Your task to perform on an android device: Search for Mexican restaurants on Maps Image 0: 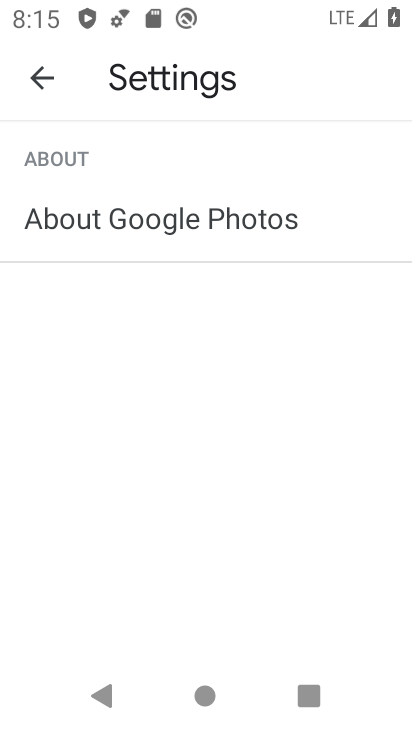
Step 0: press home button
Your task to perform on an android device: Search for Mexican restaurants on Maps Image 1: 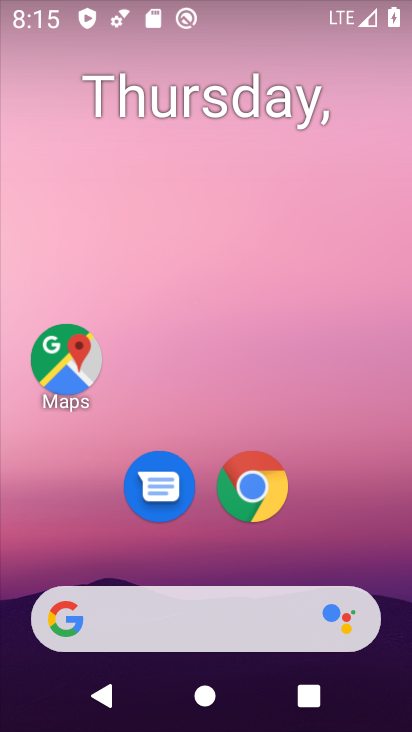
Step 1: drag from (194, 596) to (229, 55)
Your task to perform on an android device: Search for Mexican restaurants on Maps Image 2: 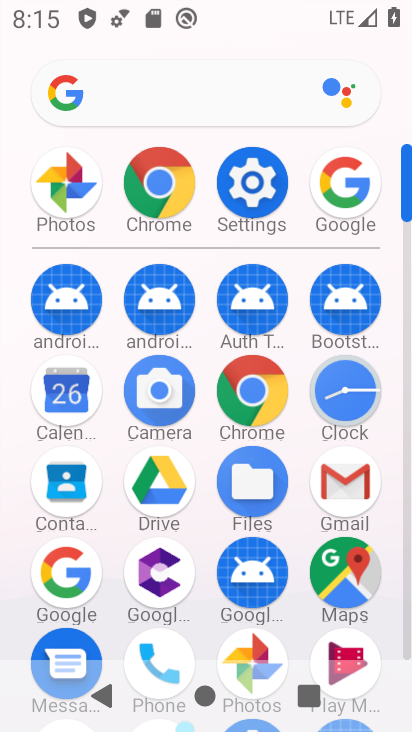
Step 2: click (365, 573)
Your task to perform on an android device: Search for Mexican restaurants on Maps Image 3: 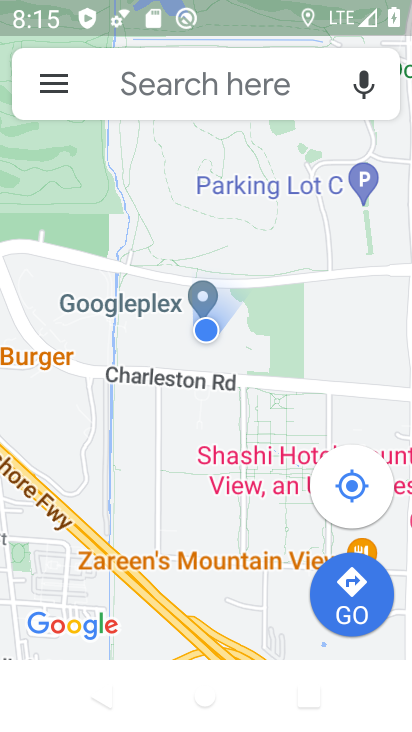
Step 3: click (148, 80)
Your task to perform on an android device: Search for Mexican restaurants on Maps Image 4: 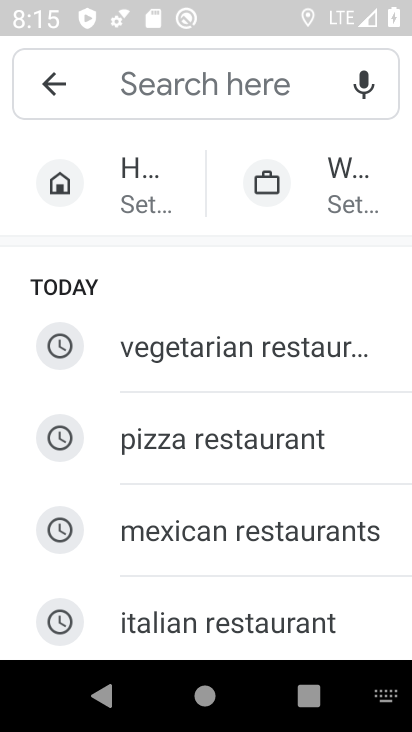
Step 4: click (245, 543)
Your task to perform on an android device: Search for Mexican restaurants on Maps Image 5: 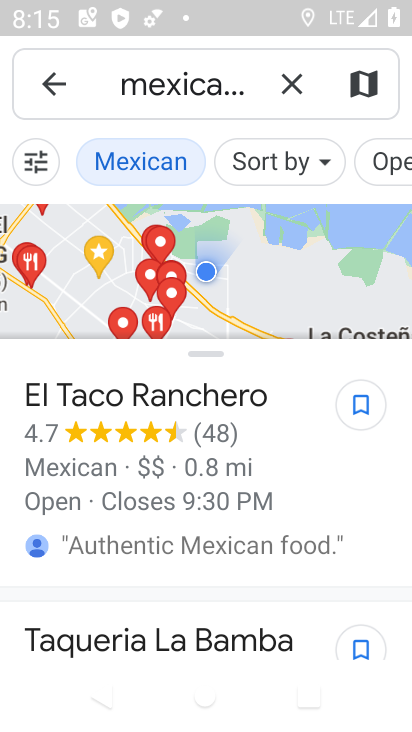
Step 5: task complete